Your task to perform on an android device: change the upload size in google photos Image 0: 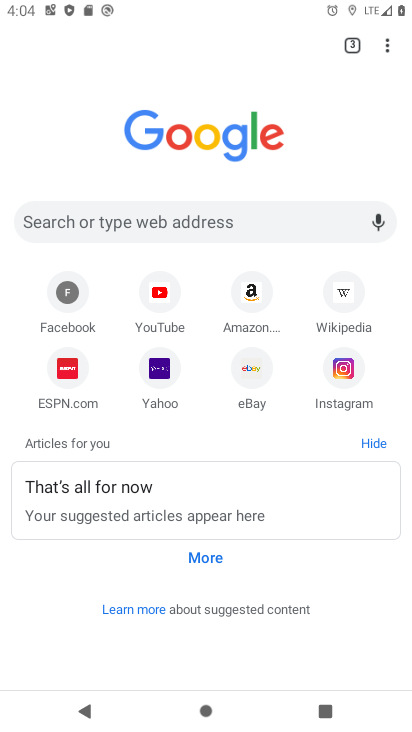
Step 0: press home button
Your task to perform on an android device: change the upload size in google photos Image 1: 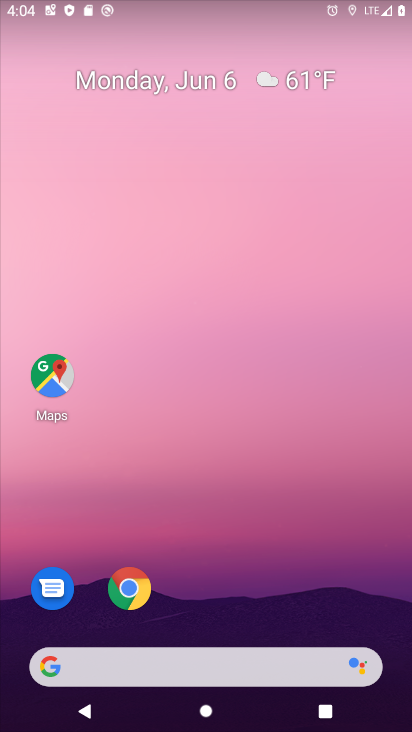
Step 1: drag from (229, 447) to (190, 245)
Your task to perform on an android device: change the upload size in google photos Image 2: 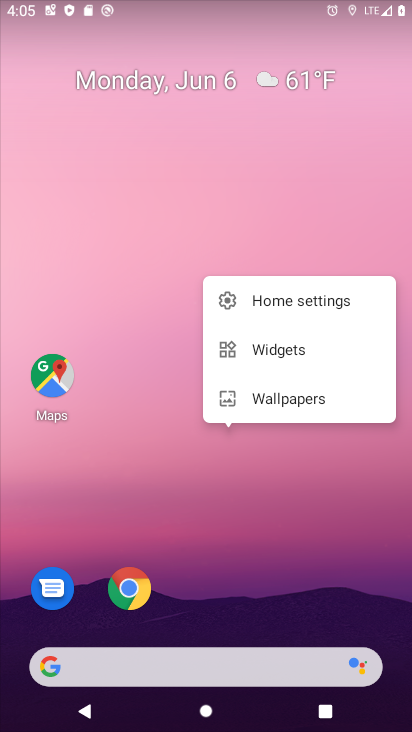
Step 2: drag from (331, 626) to (207, 54)
Your task to perform on an android device: change the upload size in google photos Image 3: 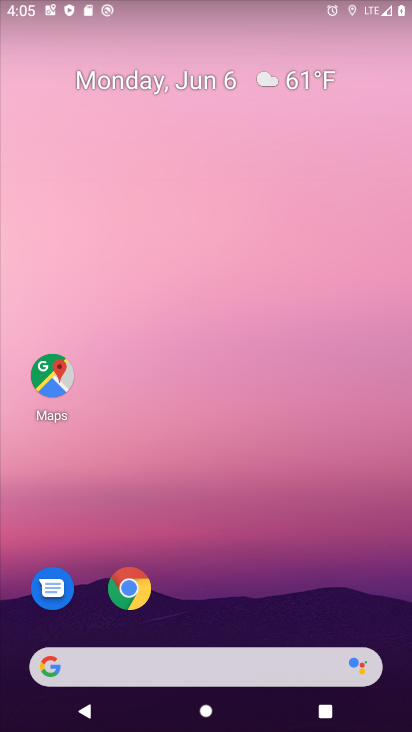
Step 3: drag from (393, 636) to (344, 108)
Your task to perform on an android device: change the upload size in google photos Image 4: 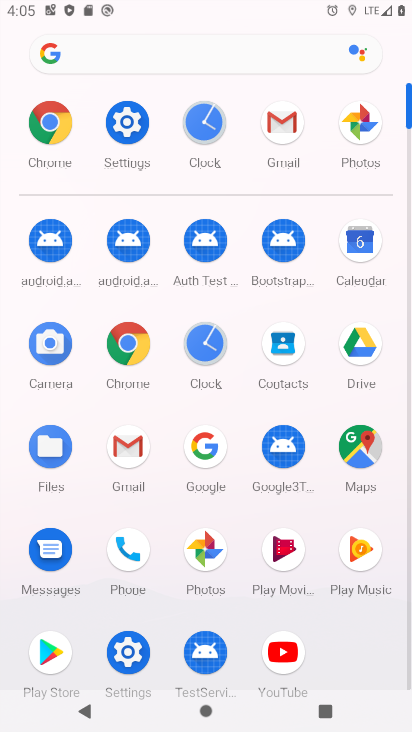
Step 4: click (367, 139)
Your task to perform on an android device: change the upload size in google photos Image 5: 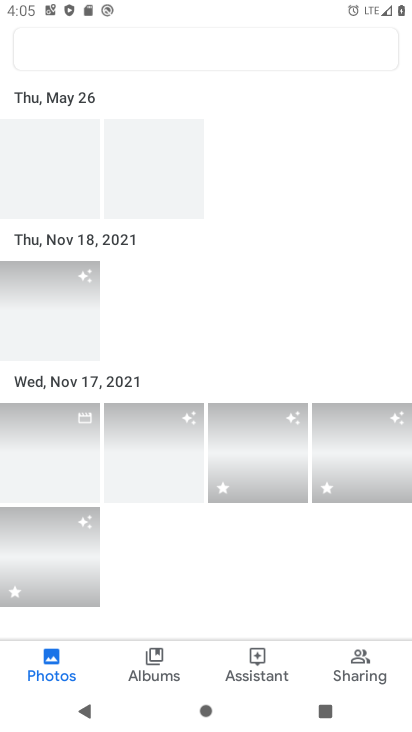
Step 5: click (354, 135)
Your task to perform on an android device: change the upload size in google photos Image 6: 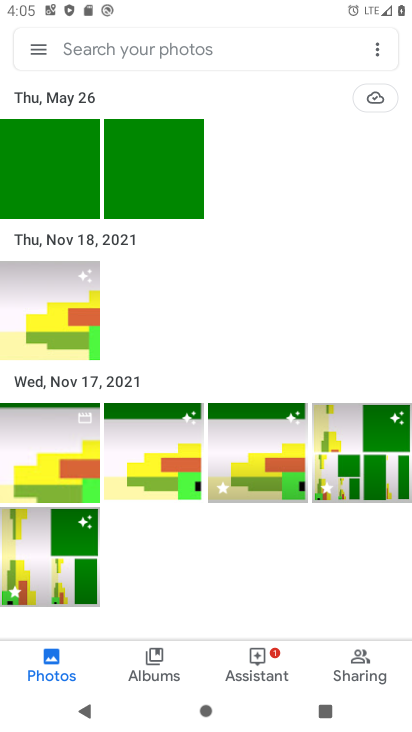
Step 6: click (40, 49)
Your task to perform on an android device: change the upload size in google photos Image 7: 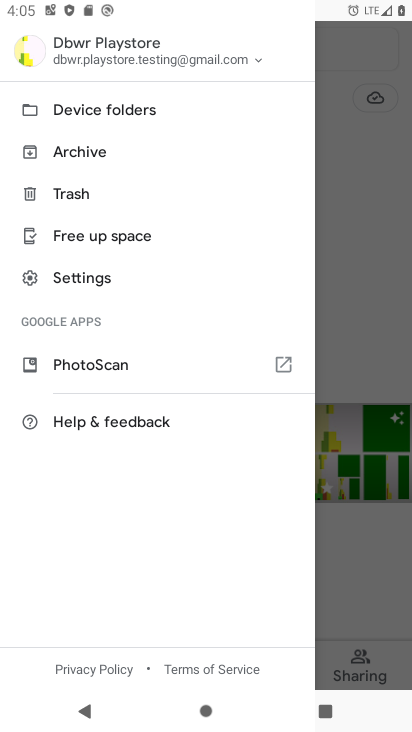
Step 7: click (95, 282)
Your task to perform on an android device: change the upload size in google photos Image 8: 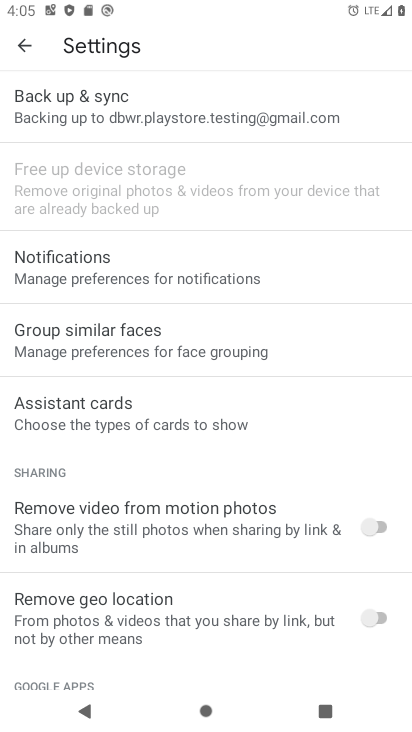
Step 8: click (193, 115)
Your task to perform on an android device: change the upload size in google photos Image 9: 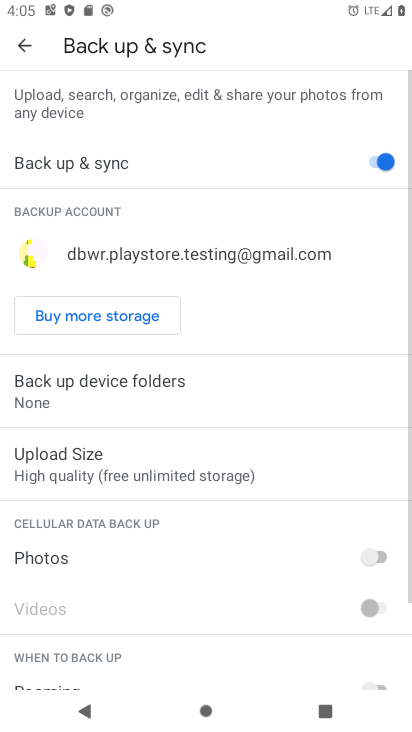
Step 9: click (185, 470)
Your task to perform on an android device: change the upload size in google photos Image 10: 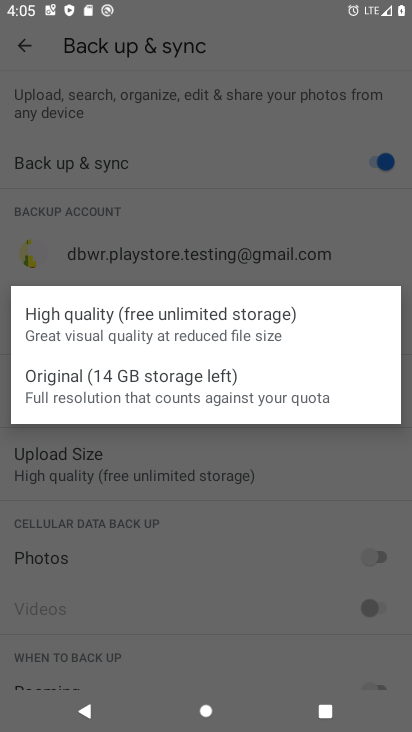
Step 10: click (128, 383)
Your task to perform on an android device: change the upload size in google photos Image 11: 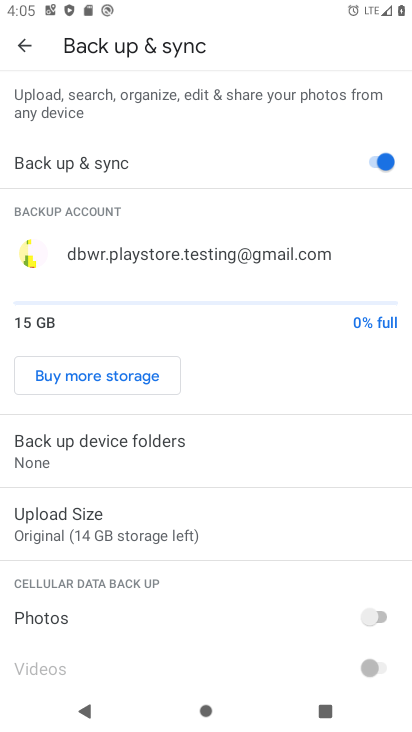
Step 11: task complete